Your task to perform on an android device: Go to calendar. Show me events next week Image 0: 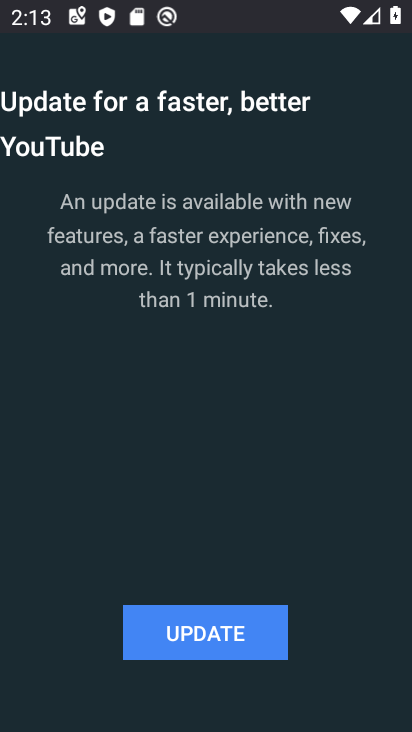
Step 0: press back button
Your task to perform on an android device: Go to calendar. Show me events next week Image 1: 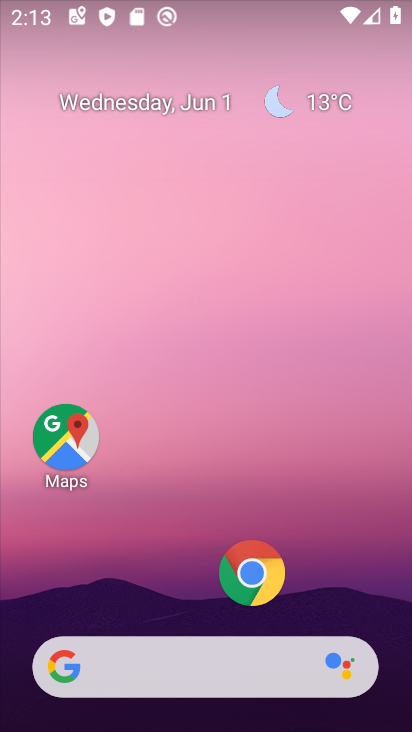
Step 1: drag from (212, 616) to (97, 72)
Your task to perform on an android device: Go to calendar. Show me events next week Image 2: 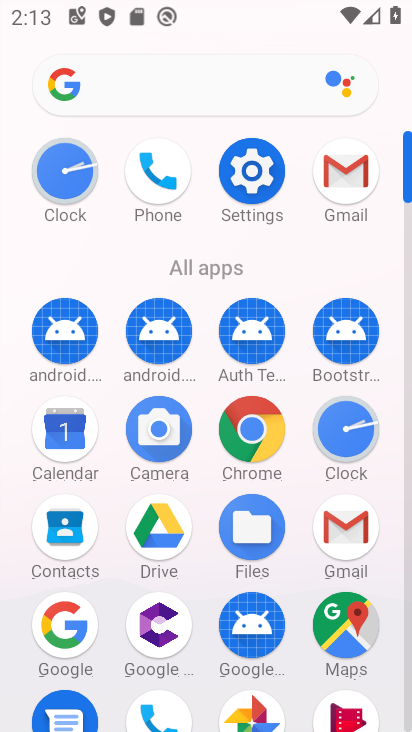
Step 2: click (61, 439)
Your task to perform on an android device: Go to calendar. Show me events next week Image 3: 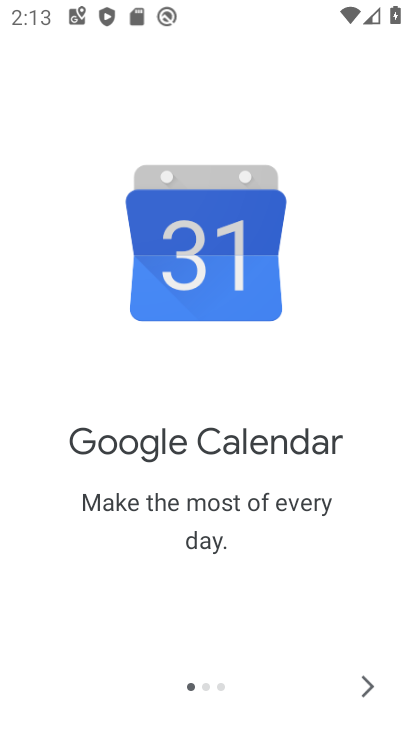
Step 3: click (372, 687)
Your task to perform on an android device: Go to calendar. Show me events next week Image 4: 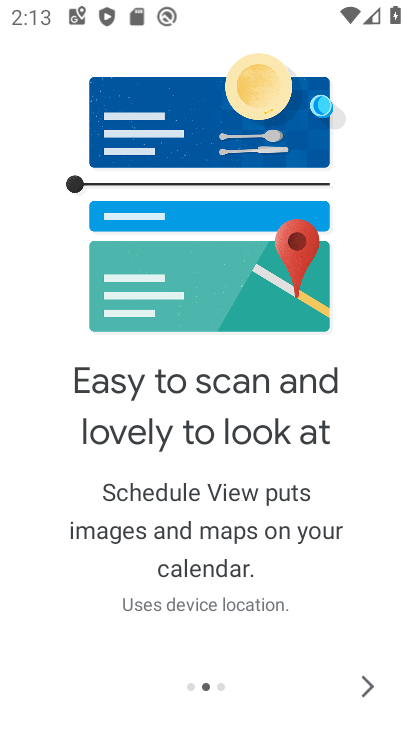
Step 4: click (372, 687)
Your task to perform on an android device: Go to calendar. Show me events next week Image 5: 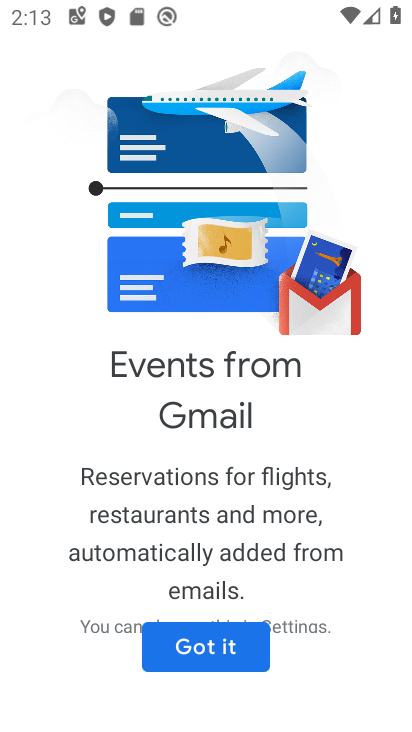
Step 5: click (233, 663)
Your task to perform on an android device: Go to calendar. Show me events next week Image 6: 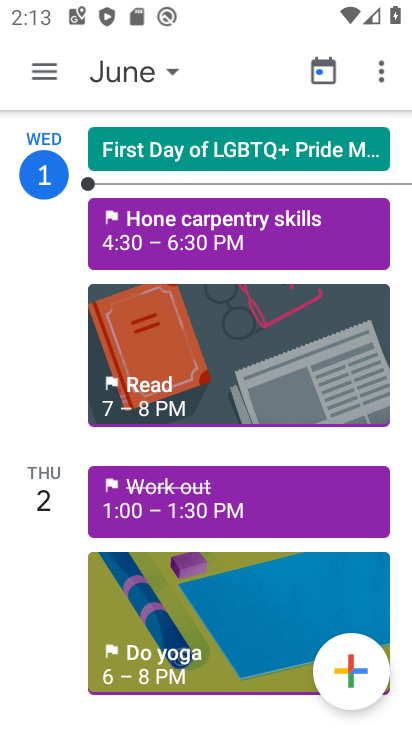
Step 6: click (47, 77)
Your task to perform on an android device: Go to calendar. Show me events next week Image 7: 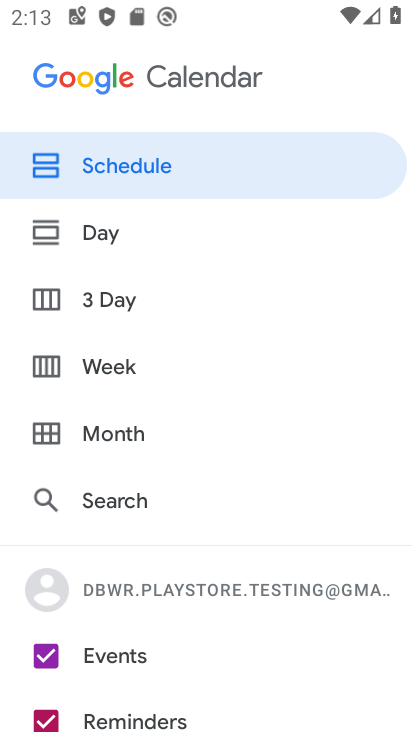
Step 7: click (116, 365)
Your task to perform on an android device: Go to calendar. Show me events next week Image 8: 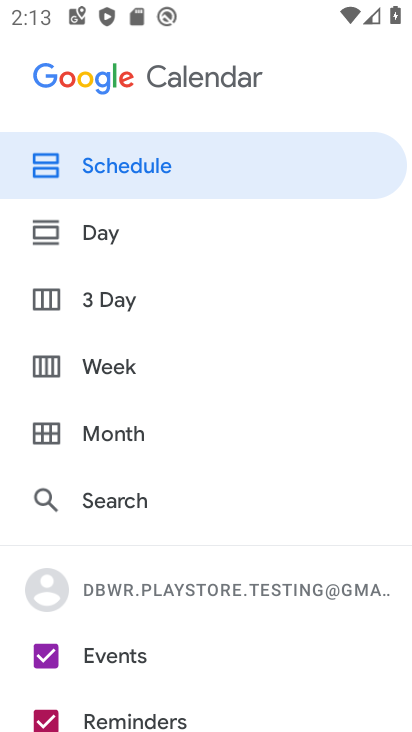
Step 8: click (117, 366)
Your task to perform on an android device: Go to calendar. Show me events next week Image 9: 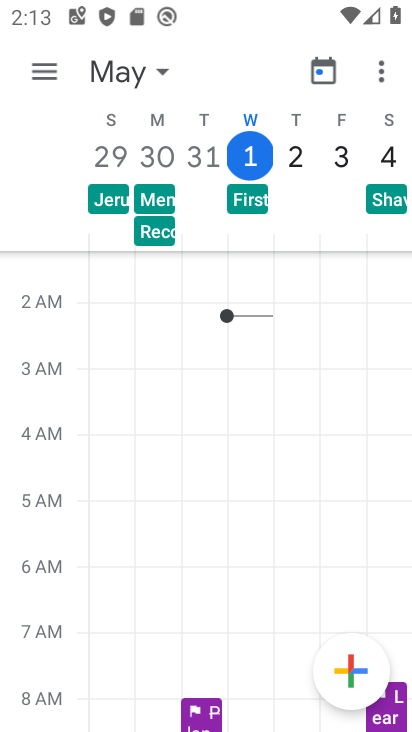
Step 9: task complete